Your task to perform on an android device: toggle javascript in the chrome app Image 0: 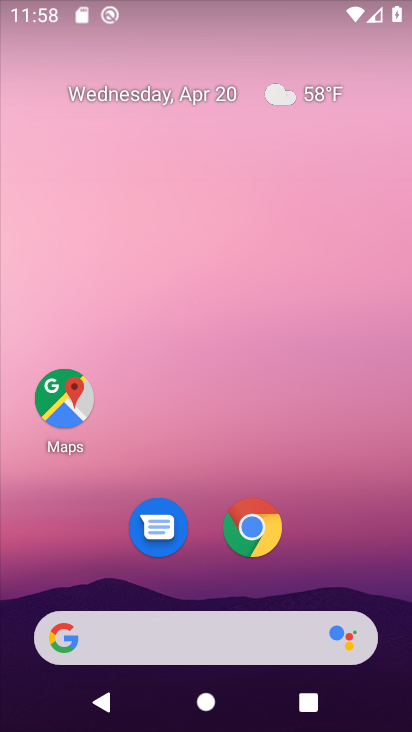
Step 0: click (252, 542)
Your task to perform on an android device: toggle javascript in the chrome app Image 1: 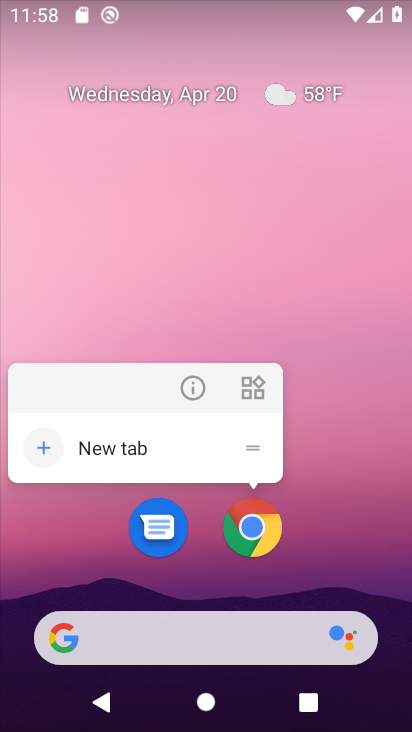
Step 1: click (257, 524)
Your task to perform on an android device: toggle javascript in the chrome app Image 2: 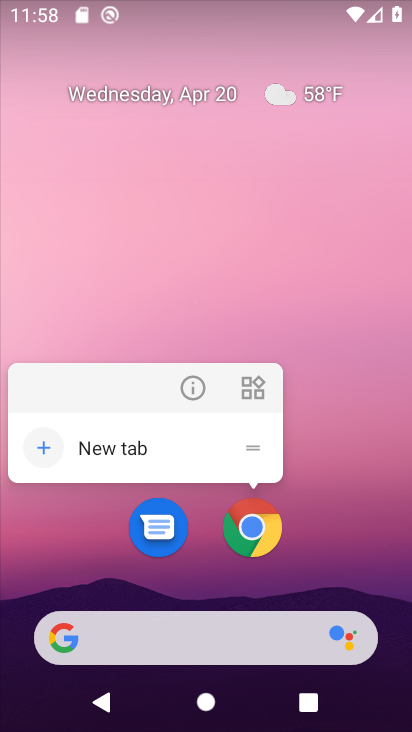
Step 2: click (257, 521)
Your task to perform on an android device: toggle javascript in the chrome app Image 3: 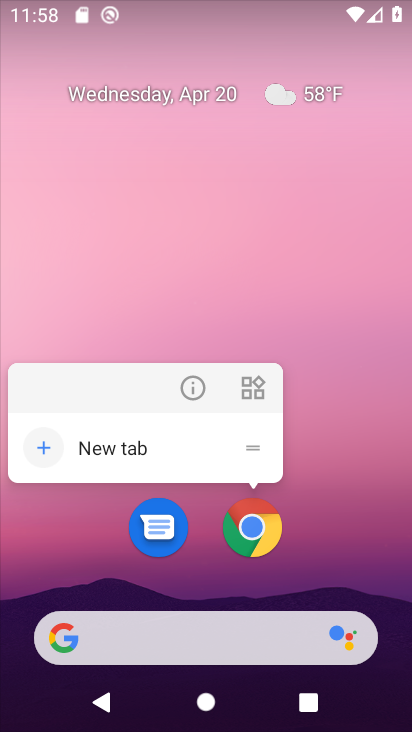
Step 3: click (255, 531)
Your task to perform on an android device: toggle javascript in the chrome app Image 4: 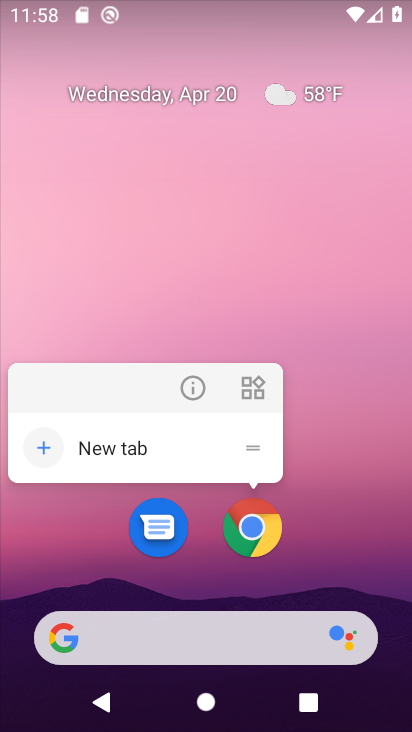
Step 4: click (243, 521)
Your task to perform on an android device: toggle javascript in the chrome app Image 5: 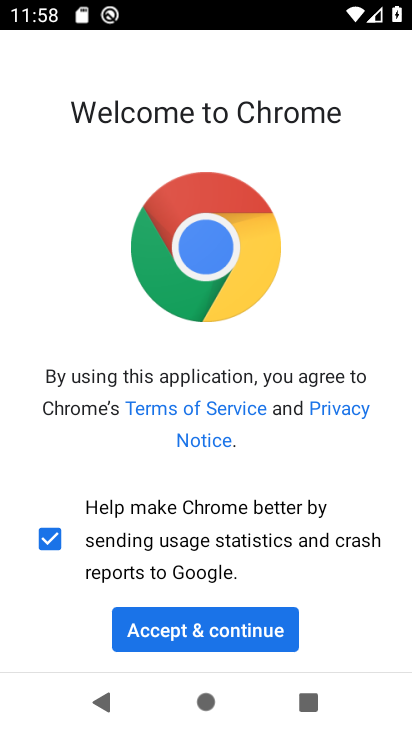
Step 5: click (219, 642)
Your task to perform on an android device: toggle javascript in the chrome app Image 6: 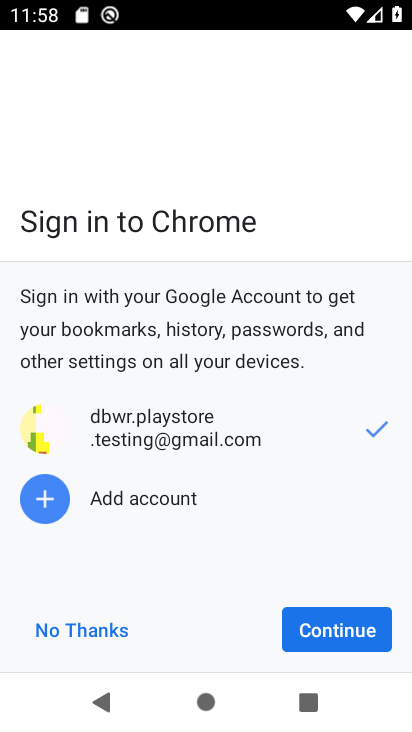
Step 6: click (332, 639)
Your task to perform on an android device: toggle javascript in the chrome app Image 7: 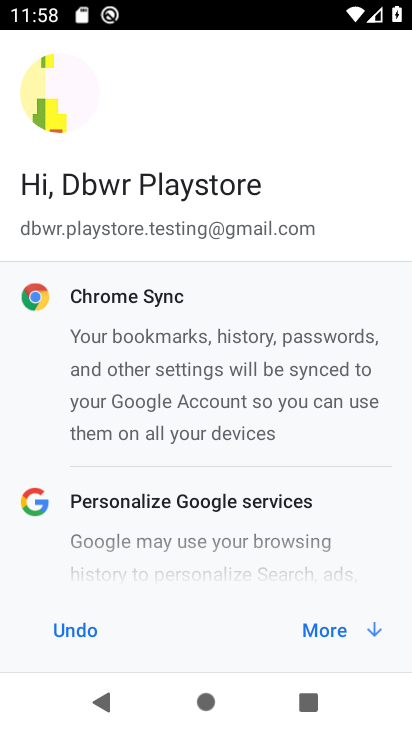
Step 7: click (329, 636)
Your task to perform on an android device: toggle javascript in the chrome app Image 8: 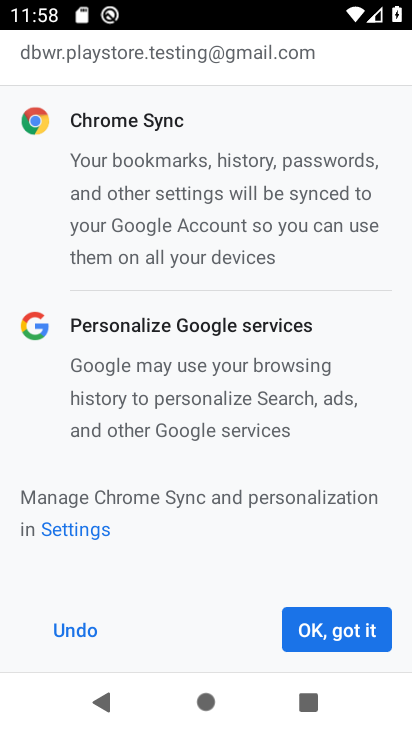
Step 8: click (330, 637)
Your task to perform on an android device: toggle javascript in the chrome app Image 9: 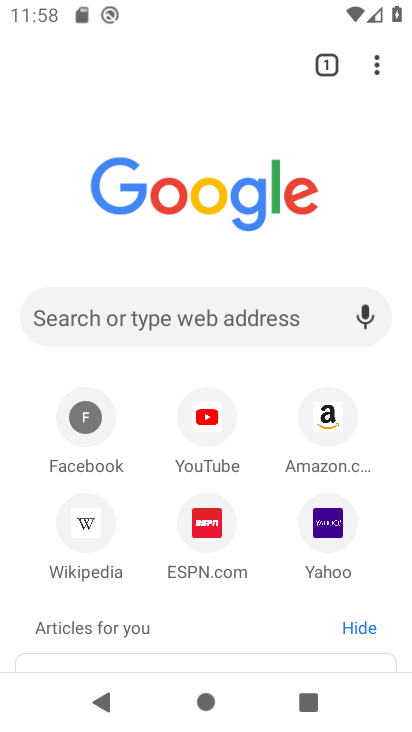
Step 9: drag from (371, 67) to (220, 560)
Your task to perform on an android device: toggle javascript in the chrome app Image 10: 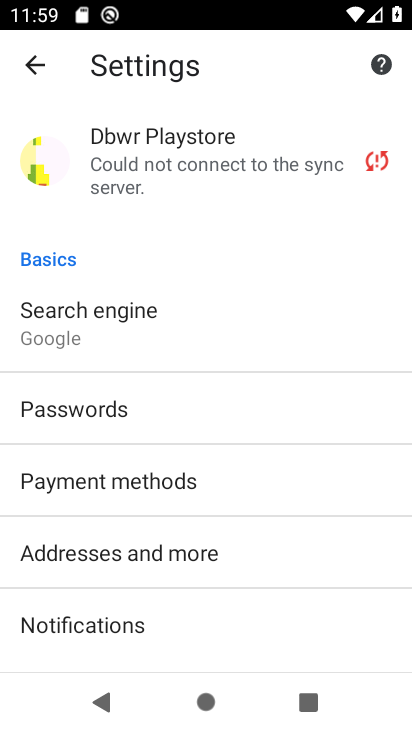
Step 10: drag from (191, 607) to (191, 409)
Your task to perform on an android device: toggle javascript in the chrome app Image 11: 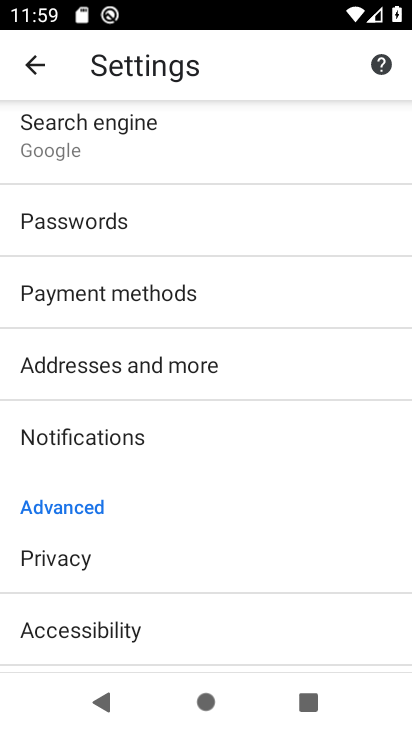
Step 11: drag from (164, 630) to (202, 239)
Your task to perform on an android device: toggle javascript in the chrome app Image 12: 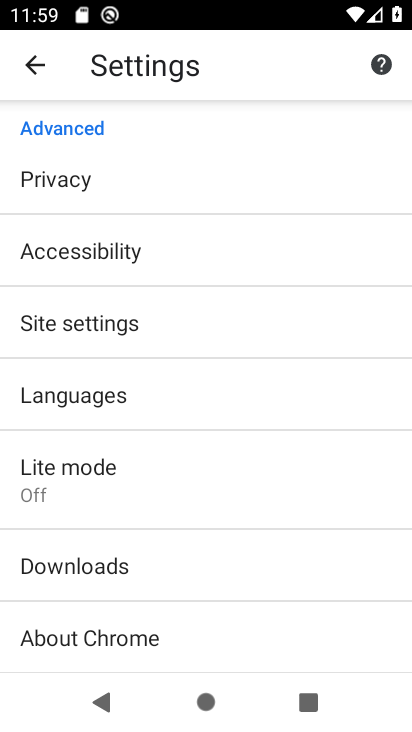
Step 12: click (125, 330)
Your task to perform on an android device: toggle javascript in the chrome app Image 13: 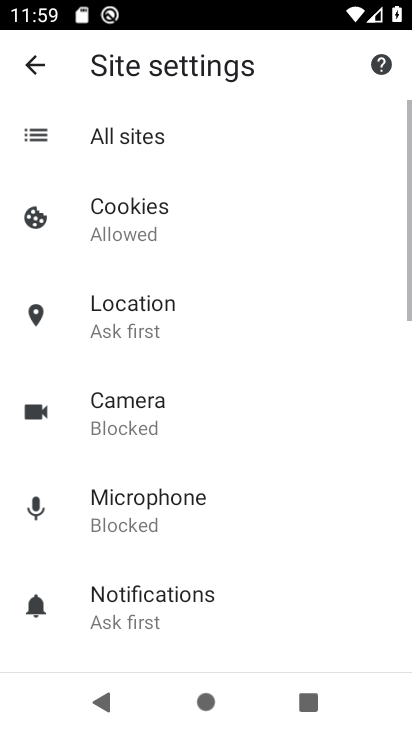
Step 13: drag from (182, 518) to (223, 159)
Your task to perform on an android device: toggle javascript in the chrome app Image 14: 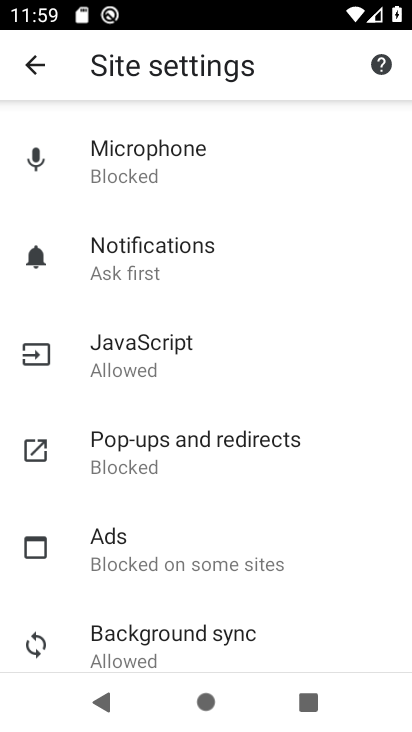
Step 14: click (156, 363)
Your task to perform on an android device: toggle javascript in the chrome app Image 15: 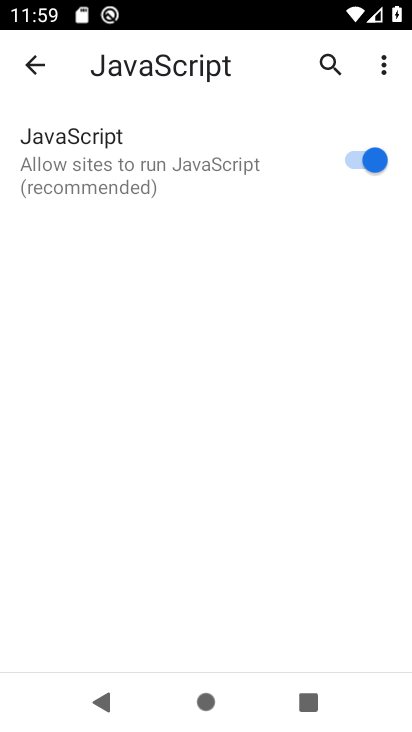
Step 15: click (373, 155)
Your task to perform on an android device: toggle javascript in the chrome app Image 16: 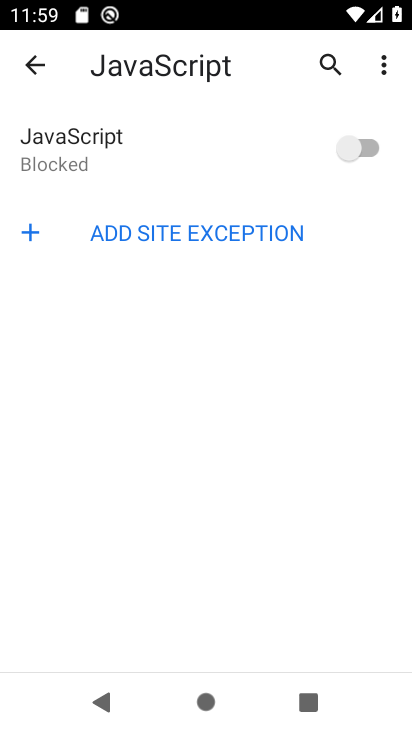
Step 16: task complete